Your task to perform on an android device: What is the news today? Image 0: 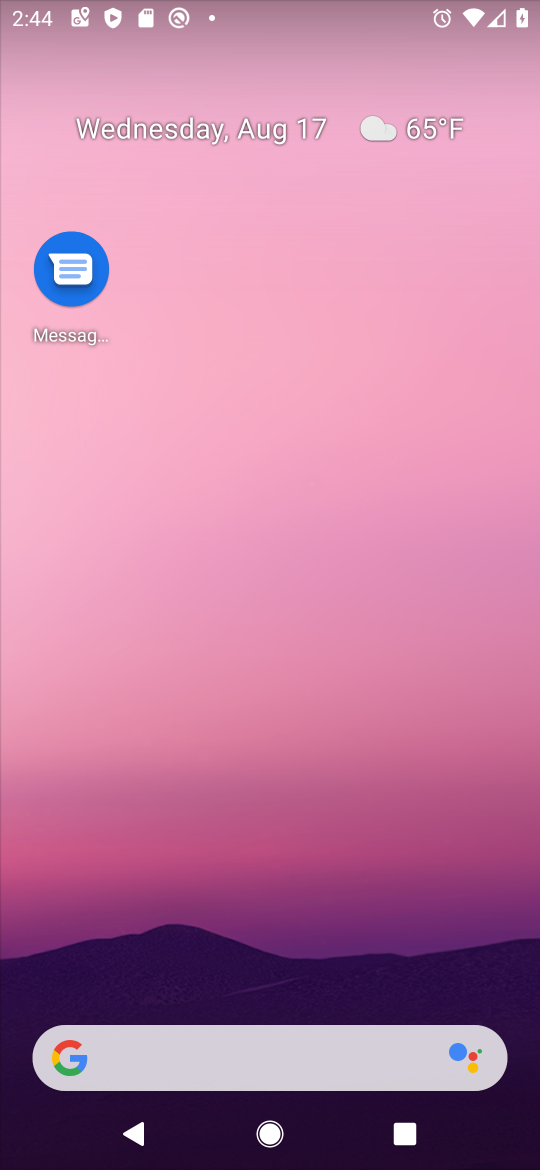
Step 0: drag from (250, 823) to (191, 119)
Your task to perform on an android device: What is the news today? Image 1: 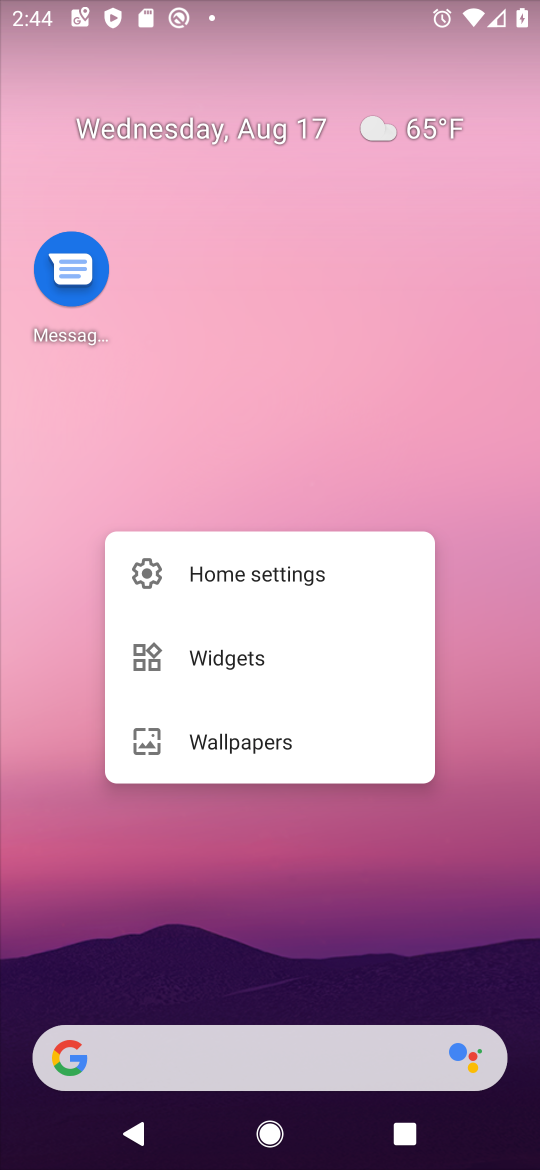
Step 1: click (267, 886)
Your task to perform on an android device: What is the news today? Image 2: 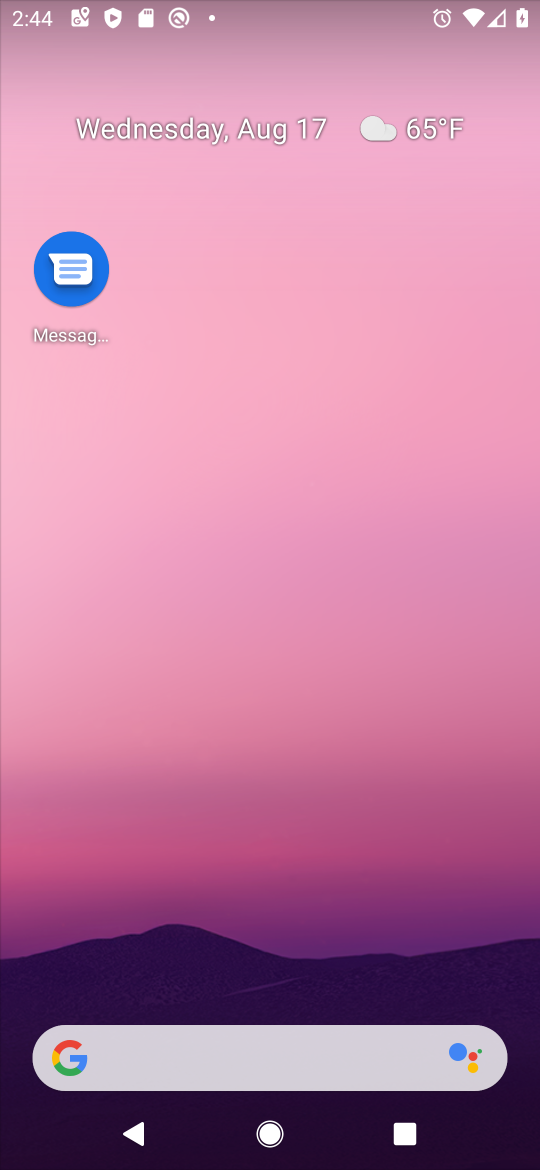
Step 2: drag from (283, 1001) to (473, 5)
Your task to perform on an android device: What is the news today? Image 3: 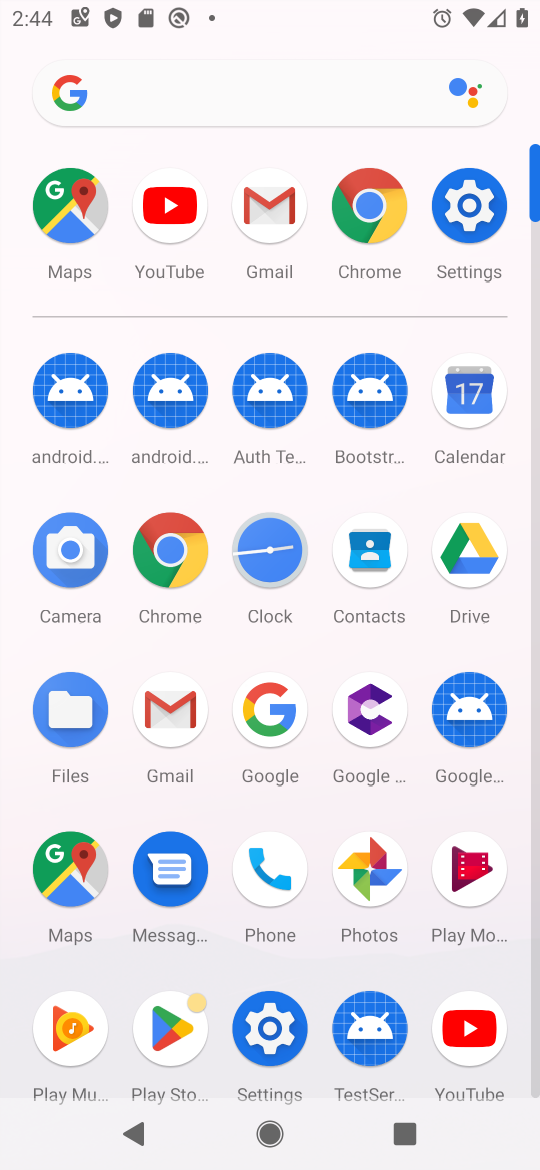
Step 3: click (271, 726)
Your task to perform on an android device: What is the news today? Image 4: 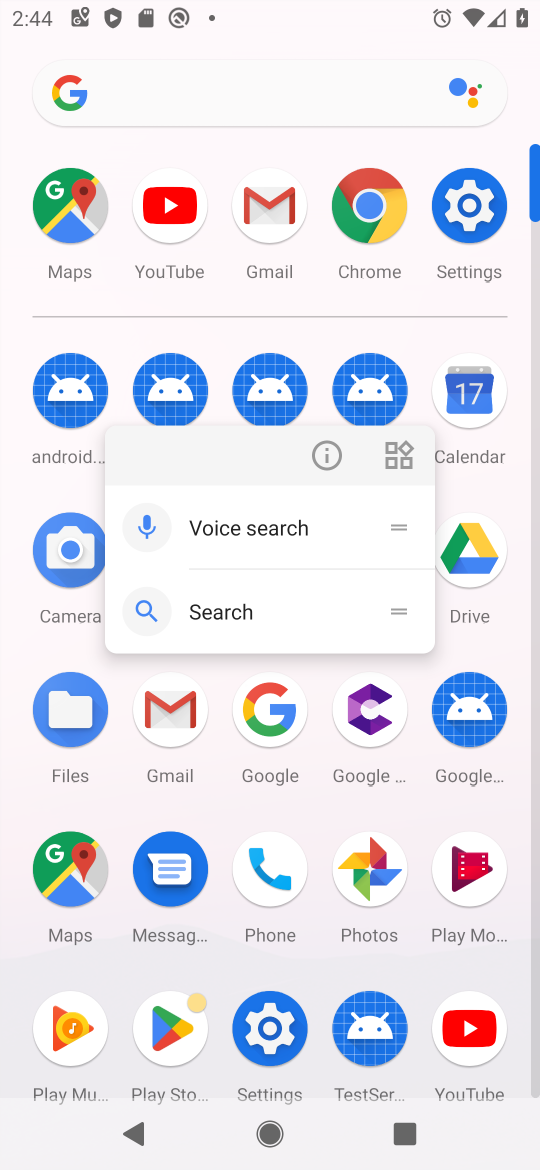
Step 4: click (271, 726)
Your task to perform on an android device: What is the news today? Image 5: 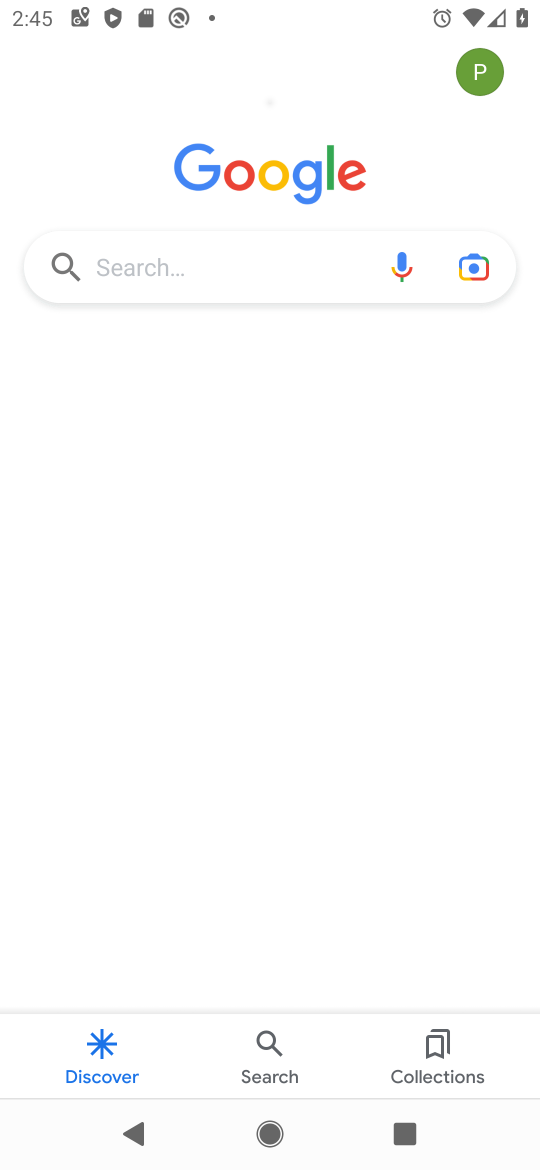
Step 5: click (259, 296)
Your task to perform on an android device: What is the news today? Image 6: 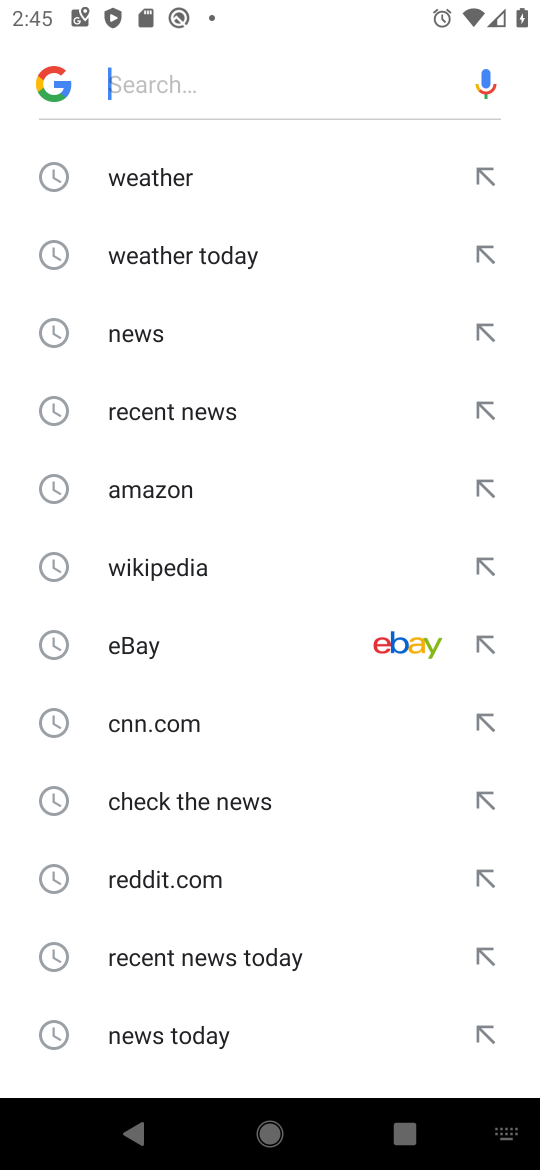
Step 6: click (148, 343)
Your task to perform on an android device: What is the news today? Image 7: 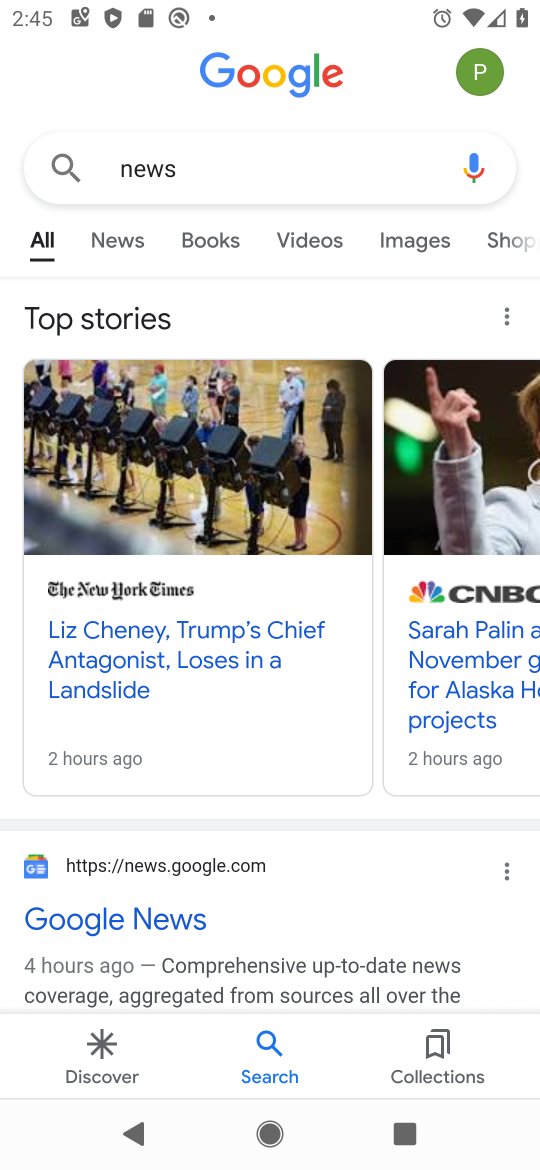
Step 7: click (100, 238)
Your task to perform on an android device: What is the news today? Image 8: 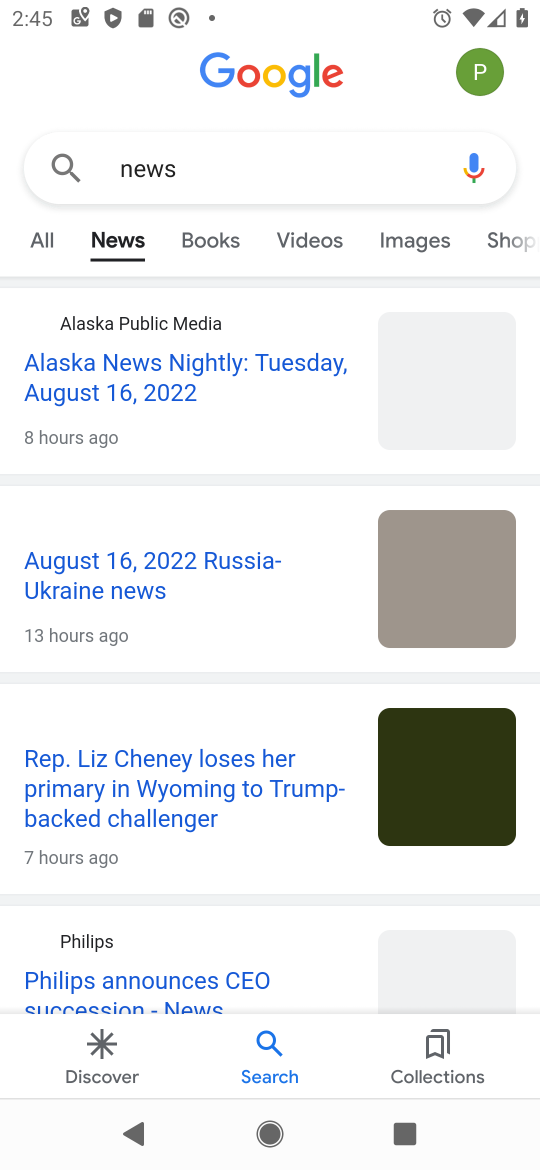
Step 8: task complete